Your task to perform on an android device: turn off location history Image 0: 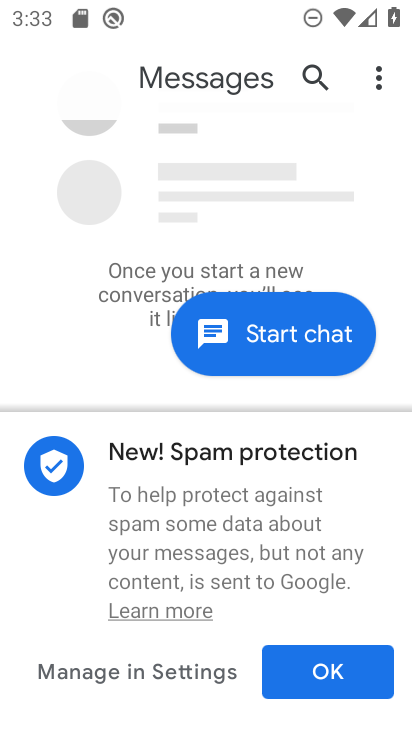
Step 0: press home button
Your task to perform on an android device: turn off location history Image 1: 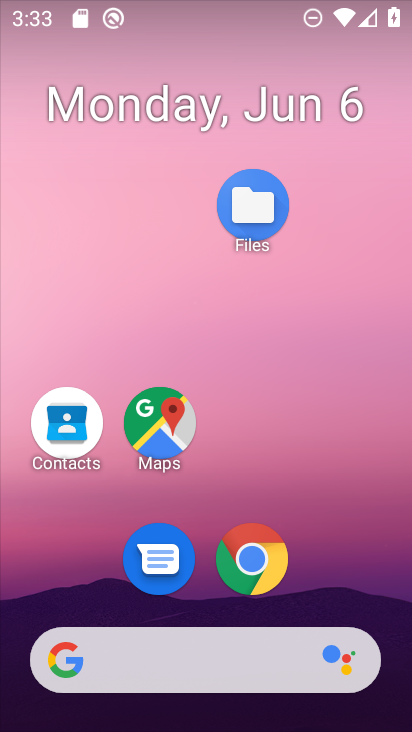
Step 1: drag from (195, 634) to (242, 118)
Your task to perform on an android device: turn off location history Image 2: 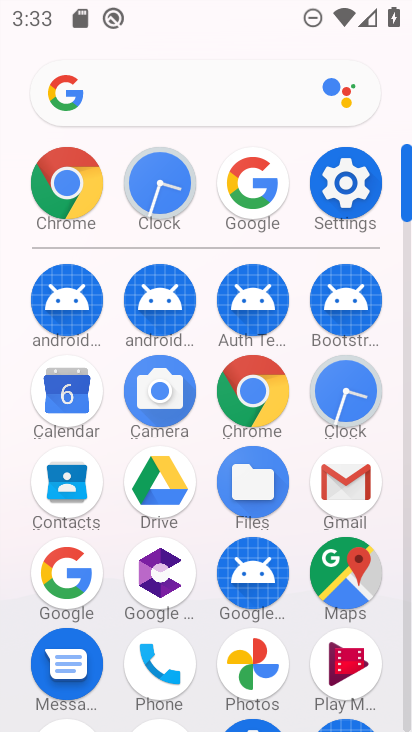
Step 2: click (344, 172)
Your task to perform on an android device: turn off location history Image 3: 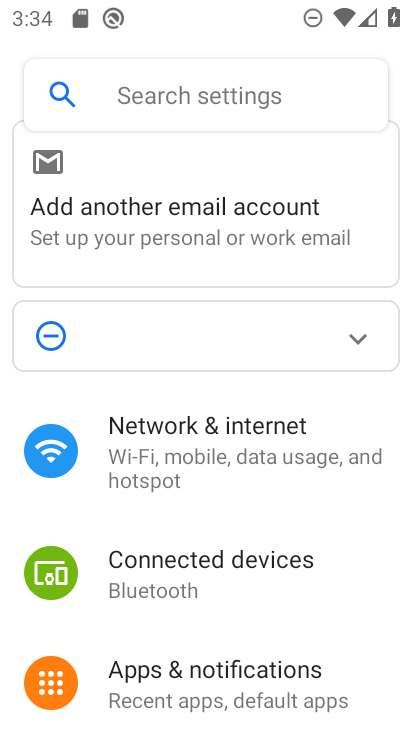
Step 3: drag from (197, 560) to (160, 251)
Your task to perform on an android device: turn off location history Image 4: 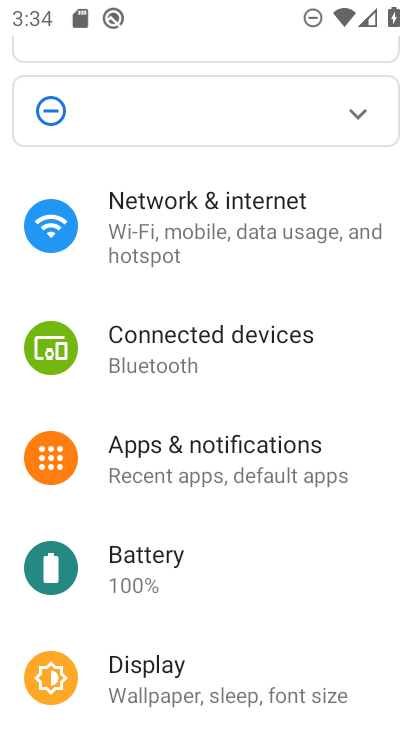
Step 4: drag from (183, 569) to (197, 322)
Your task to perform on an android device: turn off location history Image 5: 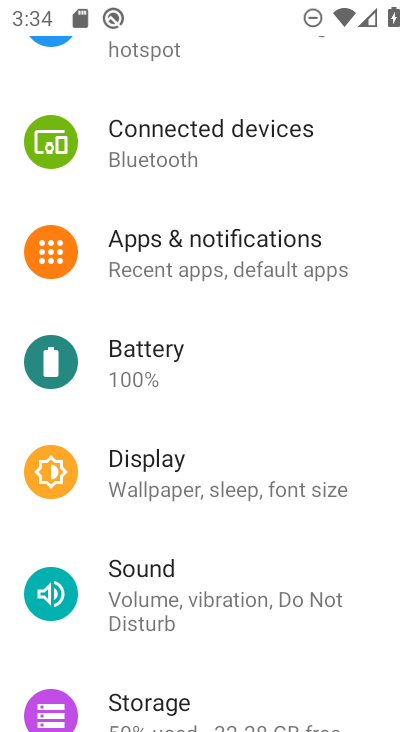
Step 5: drag from (237, 581) to (249, 283)
Your task to perform on an android device: turn off location history Image 6: 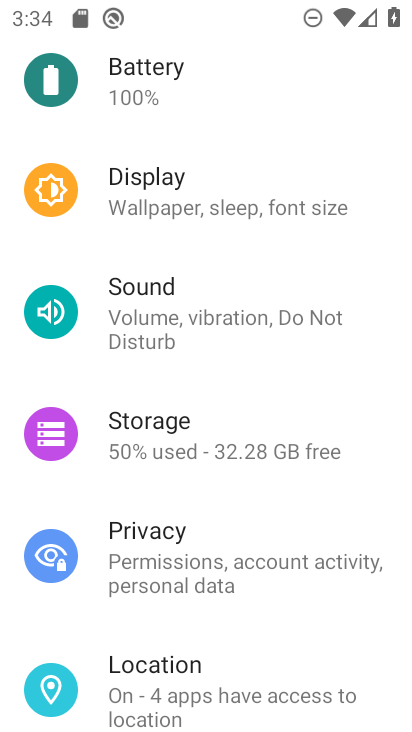
Step 6: click (229, 687)
Your task to perform on an android device: turn off location history Image 7: 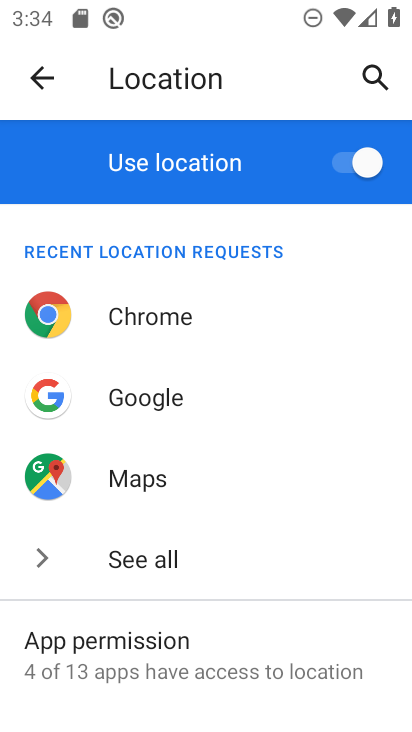
Step 7: click (247, 261)
Your task to perform on an android device: turn off location history Image 8: 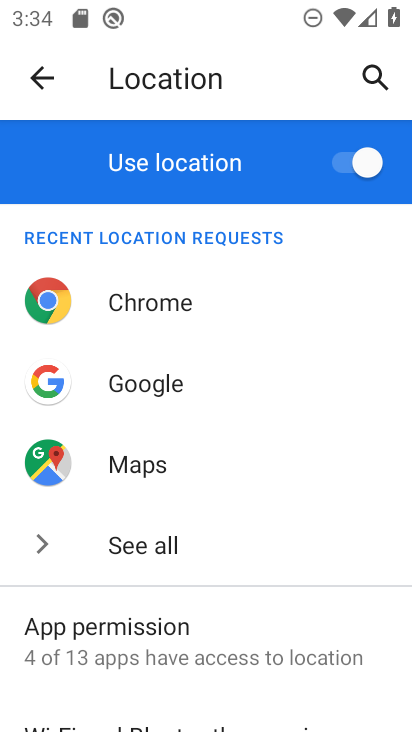
Step 8: drag from (260, 592) to (255, 283)
Your task to perform on an android device: turn off location history Image 9: 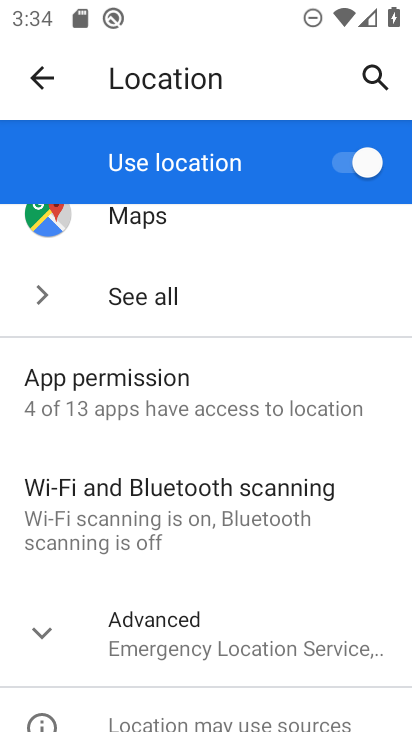
Step 9: click (250, 619)
Your task to perform on an android device: turn off location history Image 10: 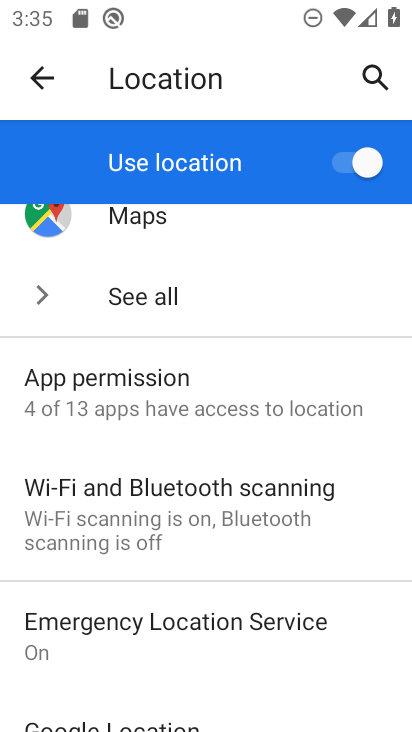
Step 10: drag from (256, 640) to (231, 275)
Your task to perform on an android device: turn off location history Image 11: 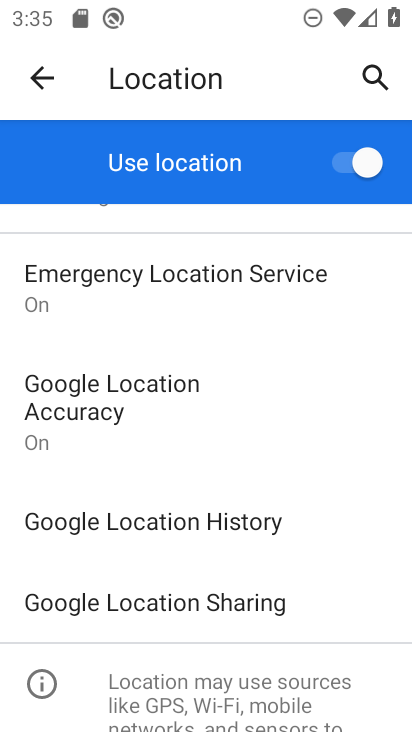
Step 11: click (219, 536)
Your task to perform on an android device: turn off location history Image 12: 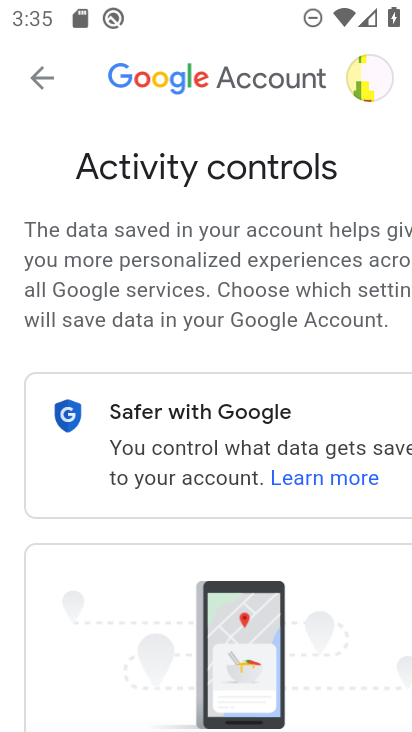
Step 12: drag from (227, 614) to (86, 321)
Your task to perform on an android device: turn off location history Image 13: 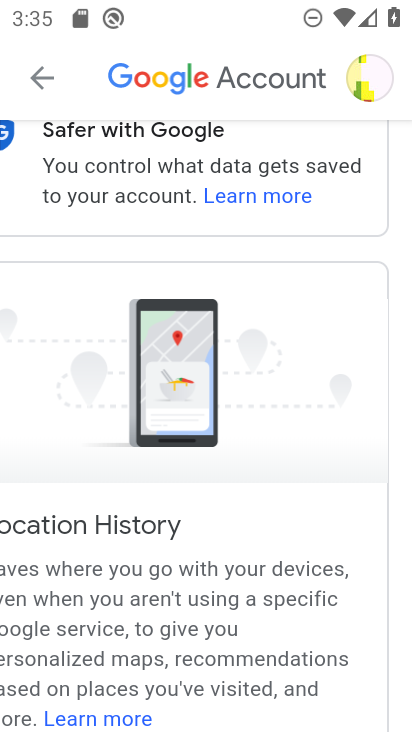
Step 13: drag from (248, 610) to (201, 291)
Your task to perform on an android device: turn off location history Image 14: 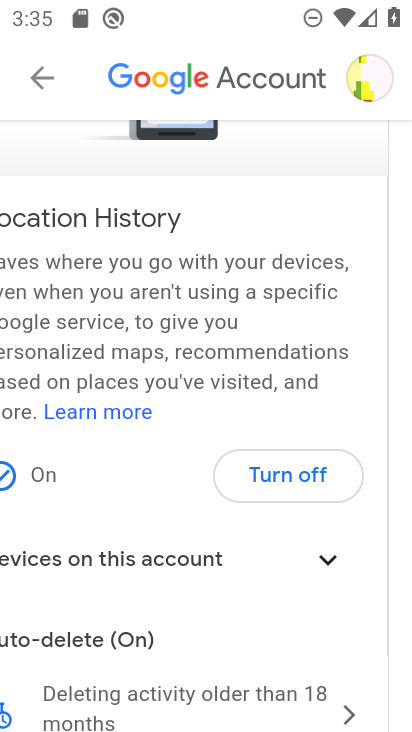
Step 14: click (282, 483)
Your task to perform on an android device: turn off location history Image 15: 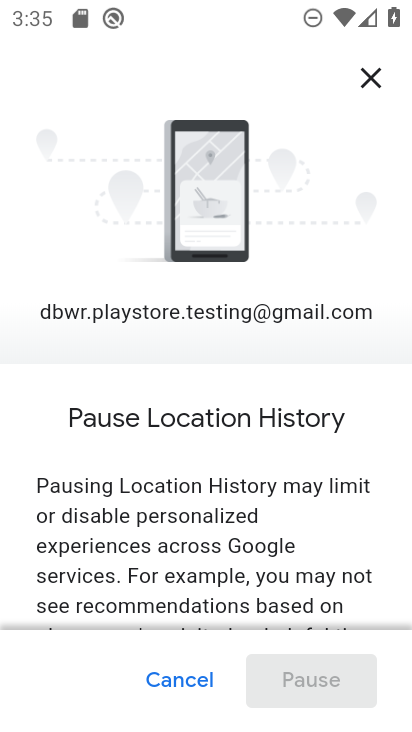
Step 15: drag from (282, 523) to (166, 6)
Your task to perform on an android device: turn off location history Image 16: 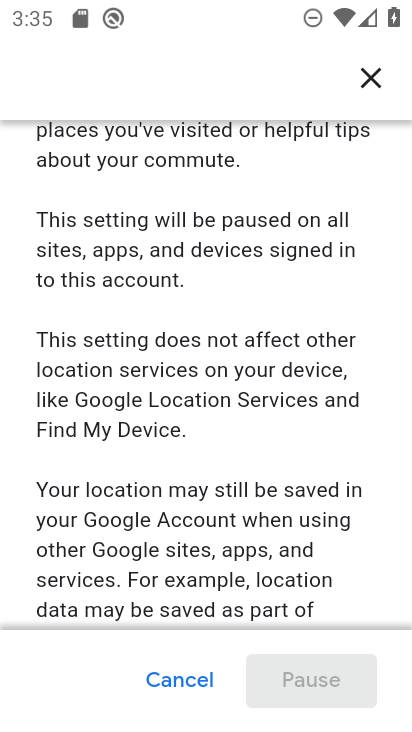
Step 16: drag from (206, 563) to (103, 52)
Your task to perform on an android device: turn off location history Image 17: 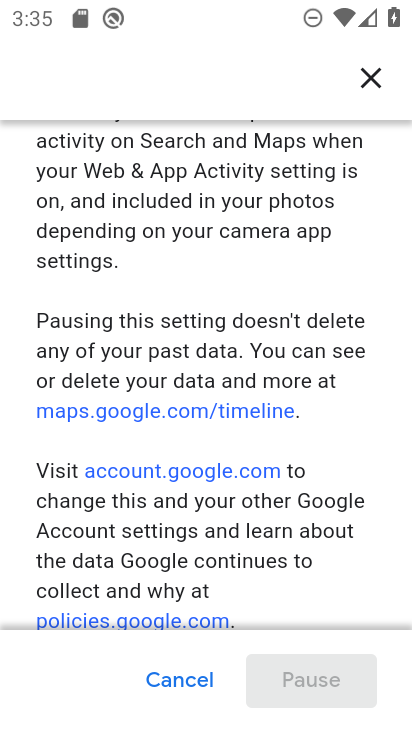
Step 17: drag from (304, 535) to (183, 6)
Your task to perform on an android device: turn off location history Image 18: 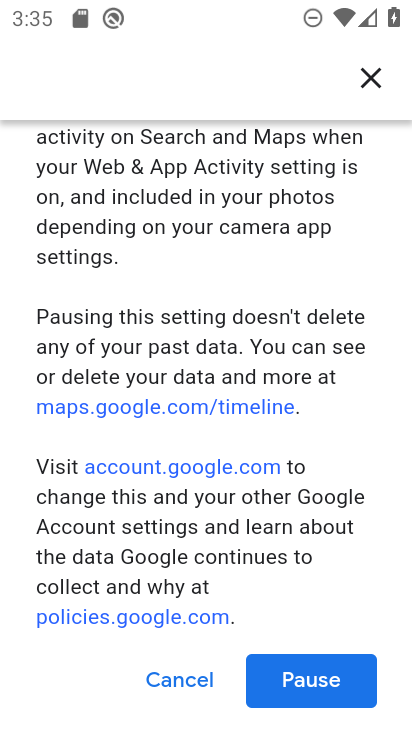
Step 18: click (293, 688)
Your task to perform on an android device: turn off location history Image 19: 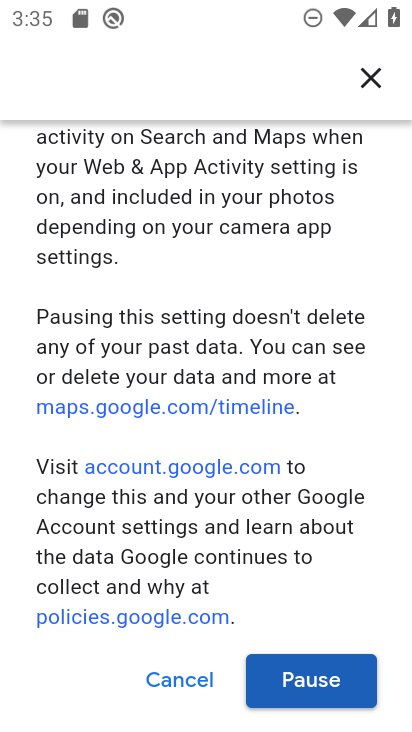
Step 19: click (300, 693)
Your task to perform on an android device: turn off location history Image 20: 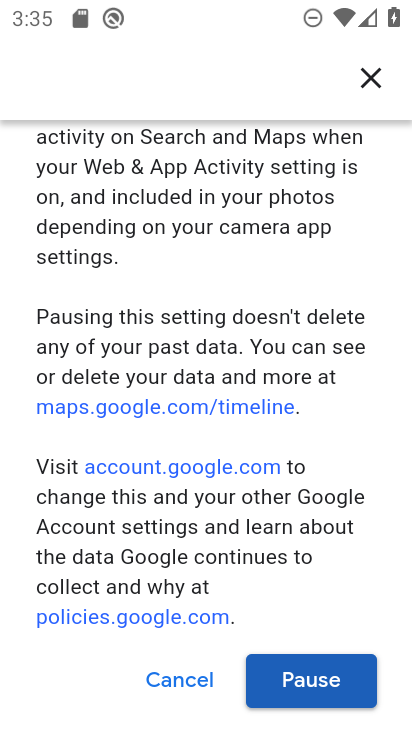
Step 20: click (328, 686)
Your task to perform on an android device: turn off location history Image 21: 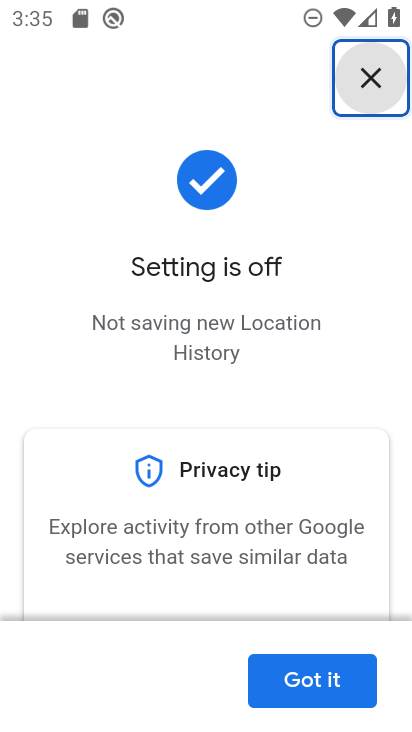
Step 21: click (292, 683)
Your task to perform on an android device: turn off location history Image 22: 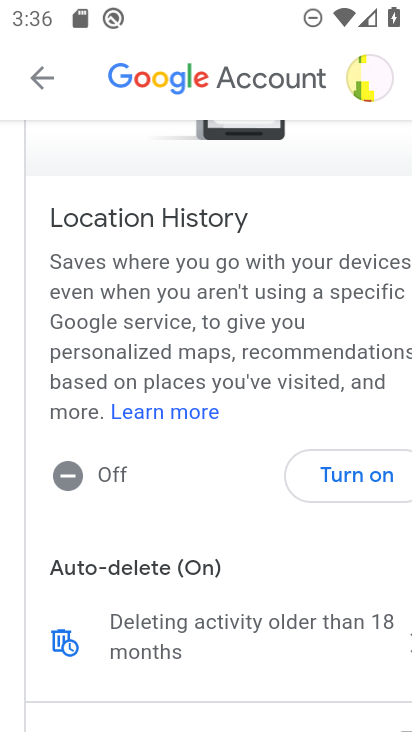
Step 22: task complete